Your task to perform on an android device: Find coffee shops on Maps Image 0: 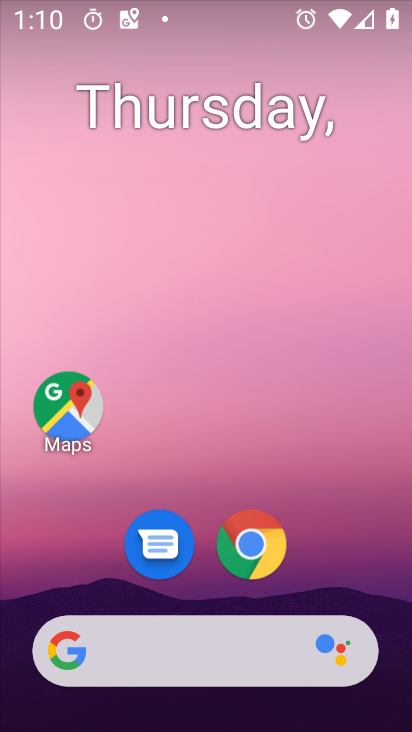
Step 0: click (53, 404)
Your task to perform on an android device: Find coffee shops on Maps Image 1: 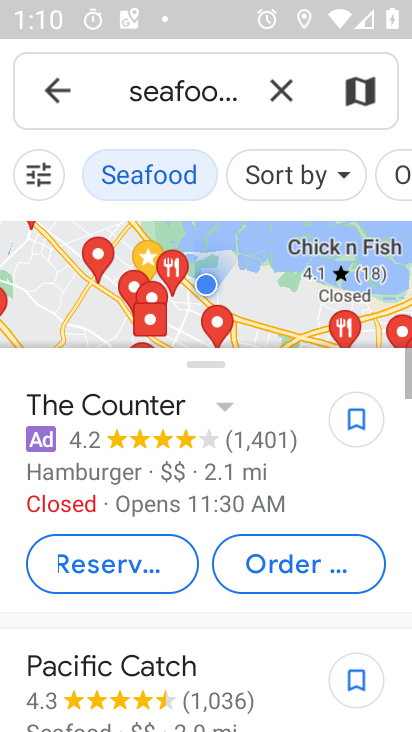
Step 1: click (283, 91)
Your task to perform on an android device: Find coffee shops on Maps Image 2: 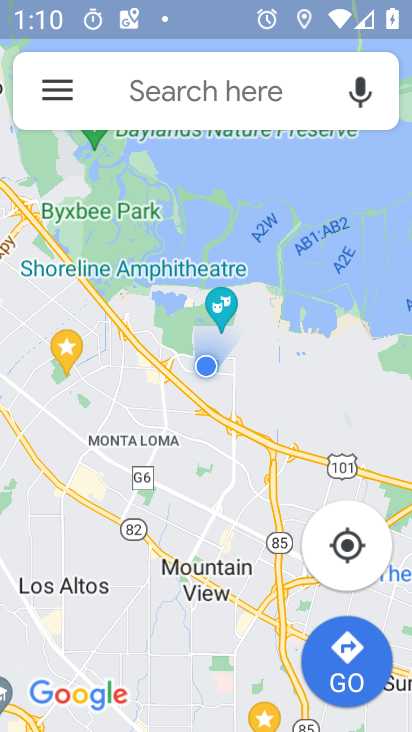
Step 2: click (125, 111)
Your task to perform on an android device: Find coffee shops on Maps Image 3: 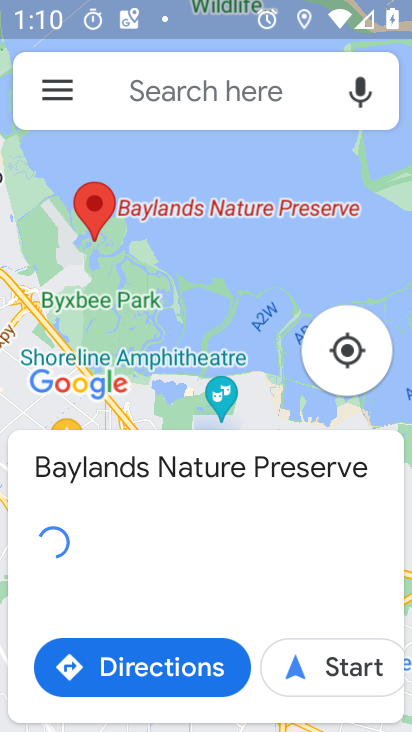
Step 3: click (150, 89)
Your task to perform on an android device: Find coffee shops on Maps Image 4: 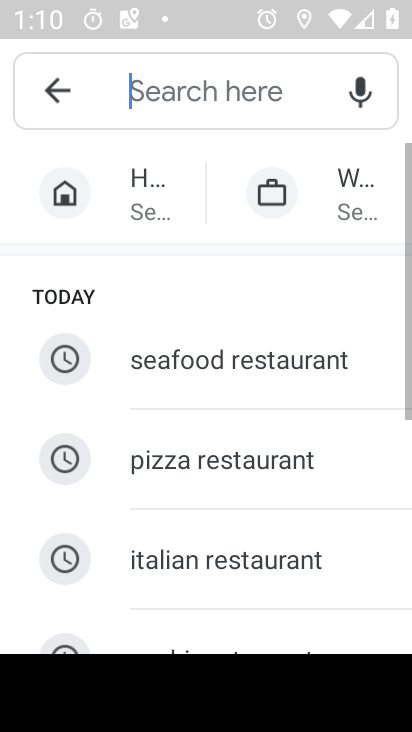
Step 4: drag from (160, 639) to (277, 177)
Your task to perform on an android device: Find coffee shops on Maps Image 5: 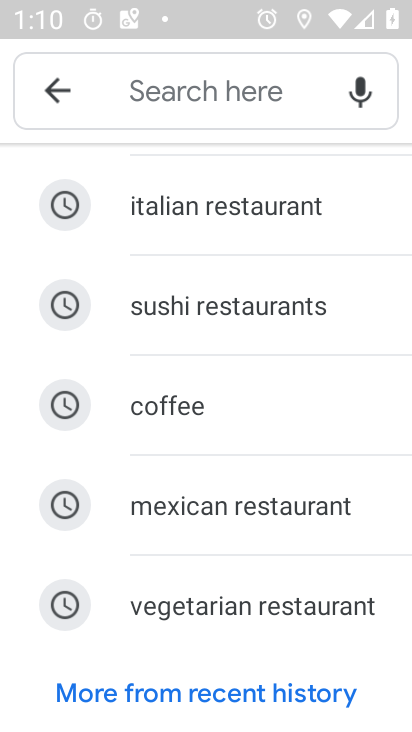
Step 5: click (171, 420)
Your task to perform on an android device: Find coffee shops on Maps Image 6: 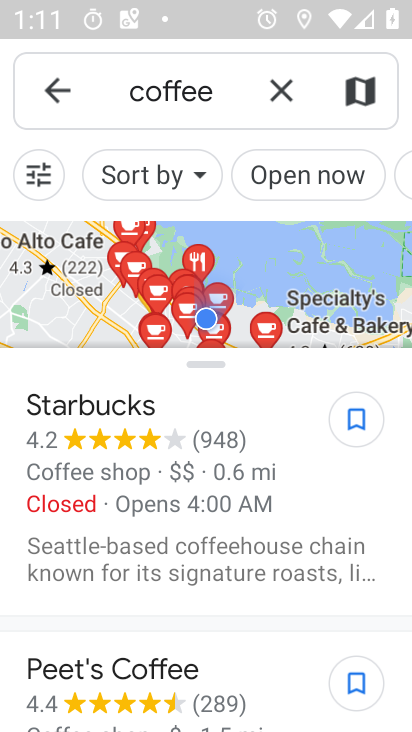
Step 6: task complete